Your task to perform on an android device: Go to display settings Image 0: 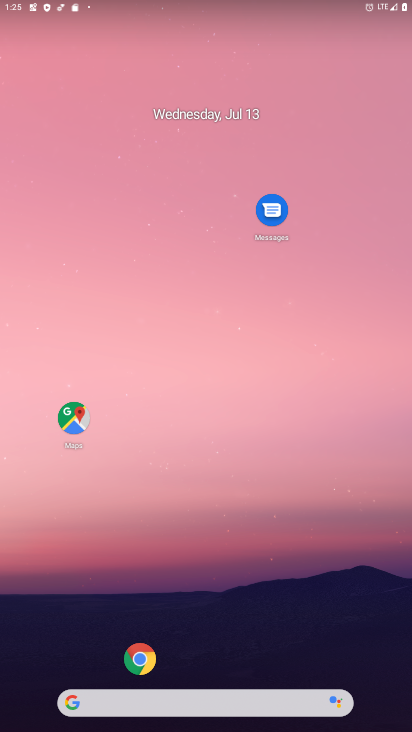
Step 0: click (127, 639)
Your task to perform on an android device: Go to display settings Image 1: 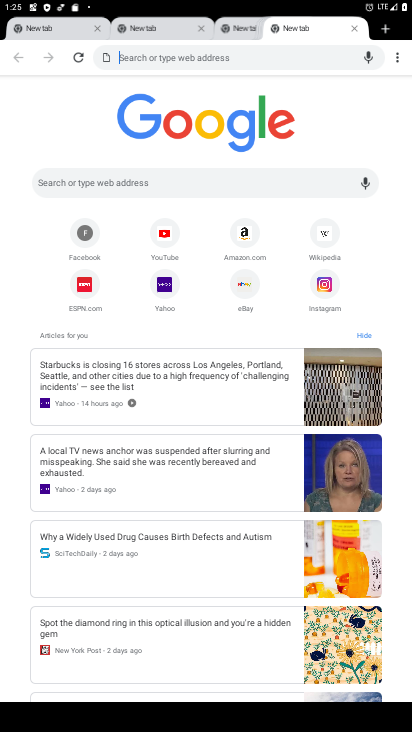
Step 1: press home button
Your task to perform on an android device: Go to display settings Image 2: 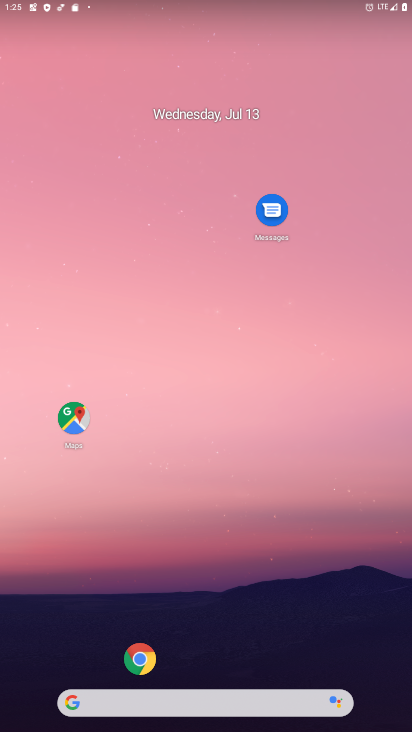
Step 2: drag from (18, 689) to (327, 6)
Your task to perform on an android device: Go to display settings Image 3: 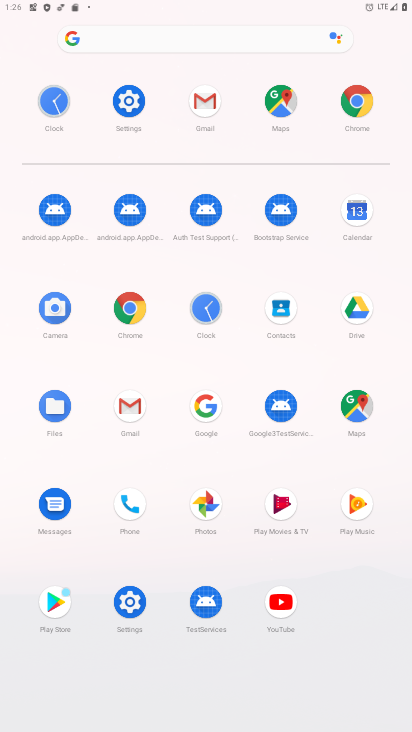
Step 3: click (125, 611)
Your task to perform on an android device: Go to display settings Image 4: 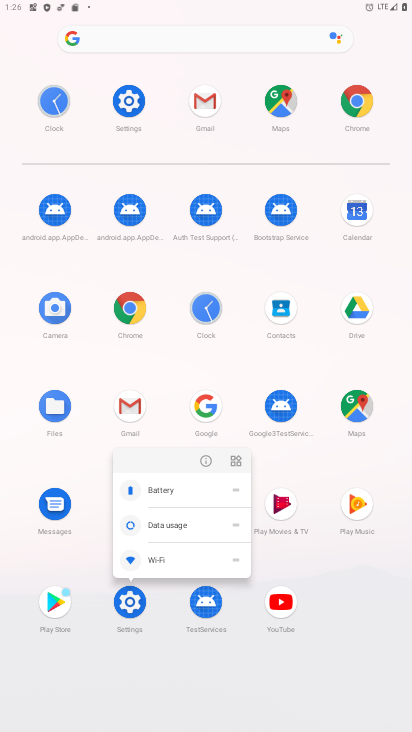
Step 4: click (194, 655)
Your task to perform on an android device: Go to display settings Image 5: 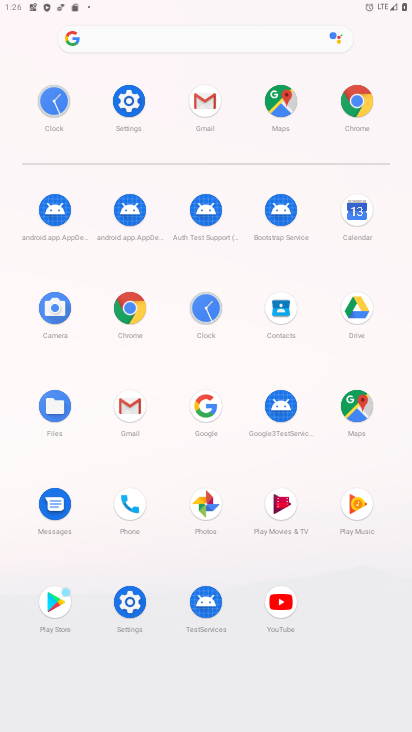
Step 5: click (135, 609)
Your task to perform on an android device: Go to display settings Image 6: 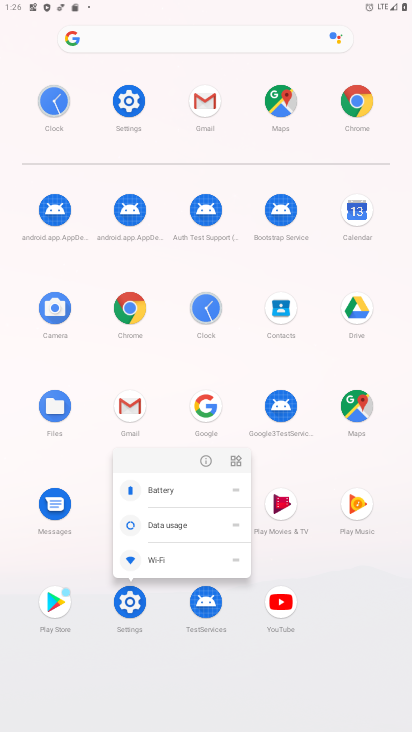
Step 6: click (134, 603)
Your task to perform on an android device: Go to display settings Image 7: 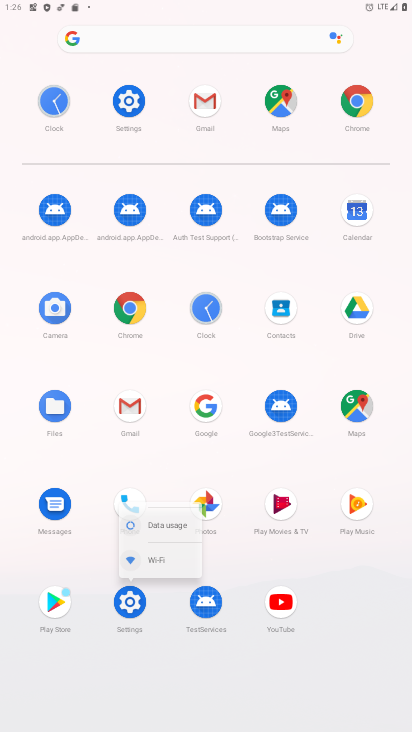
Step 7: click (134, 603)
Your task to perform on an android device: Go to display settings Image 8: 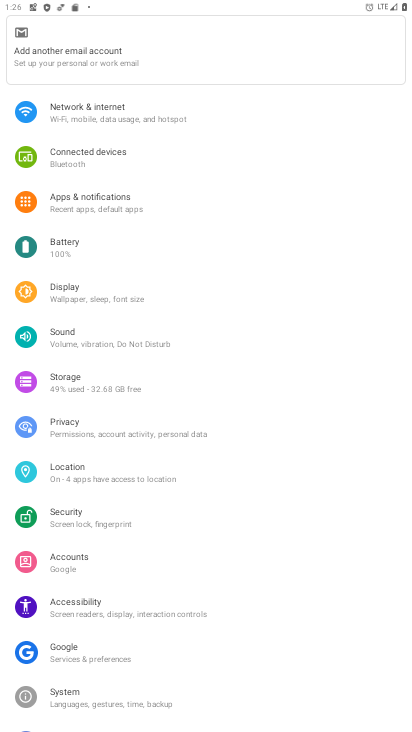
Step 8: click (61, 292)
Your task to perform on an android device: Go to display settings Image 9: 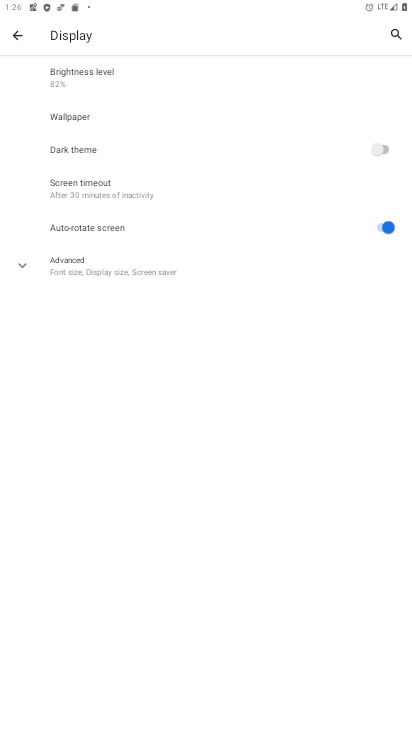
Step 9: task complete